Your task to perform on an android device: Open wifi settings Image 0: 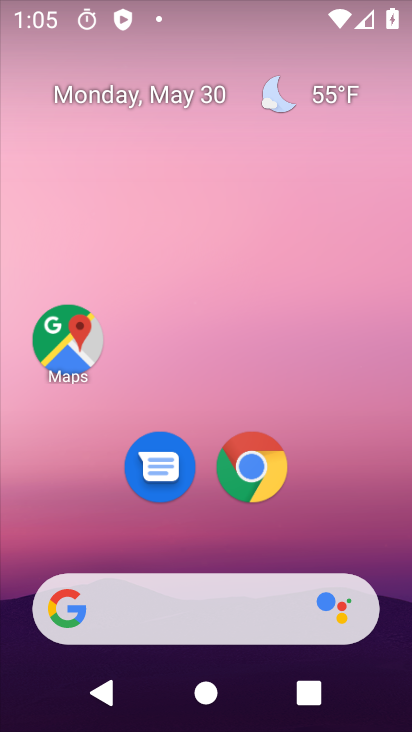
Step 0: drag from (391, 664) to (344, 223)
Your task to perform on an android device: Open wifi settings Image 1: 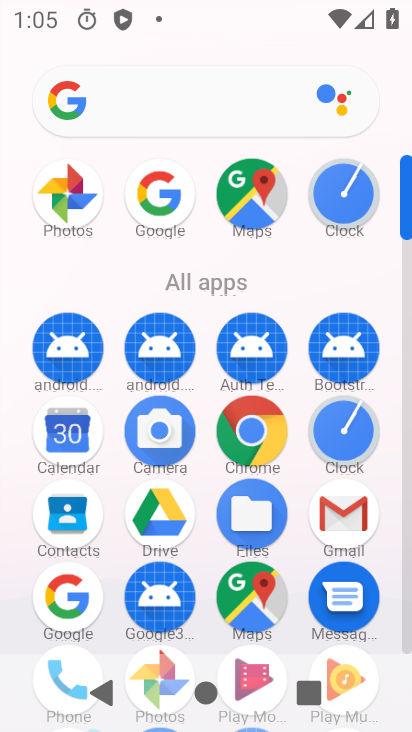
Step 1: drag from (192, 621) to (194, 221)
Your task to perform on an android device: Open wifi settings Image 2: 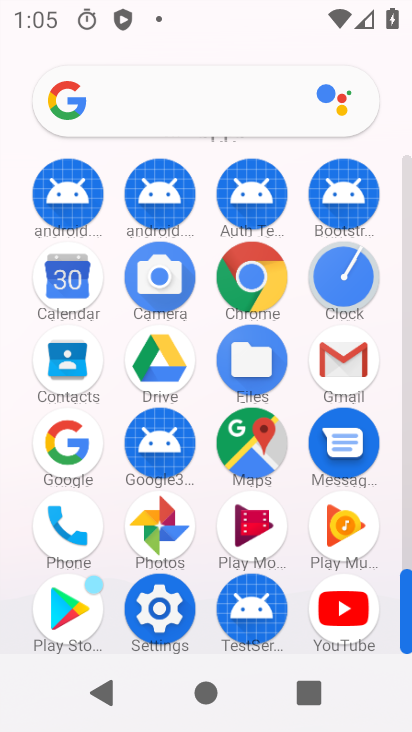
Step 2: click (169, 615)
Your task to perform on an android device: Open wifi settings Image 3: 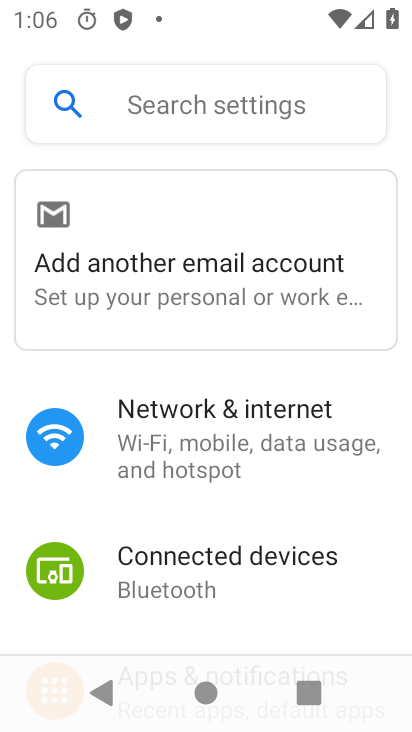
Step 3: drag from (223, 594) to (221, 247)
Your task to perform on an android device: Open wifi settings Image 4: 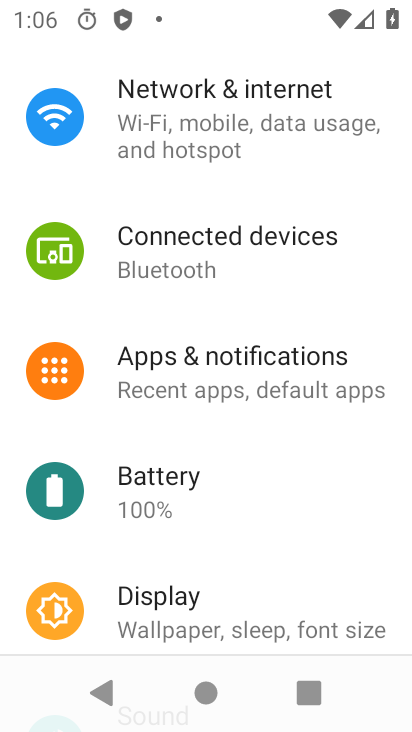
Step 4: click (169, 133)
Your task to perform on an android device: Open wifi settings Image 5: 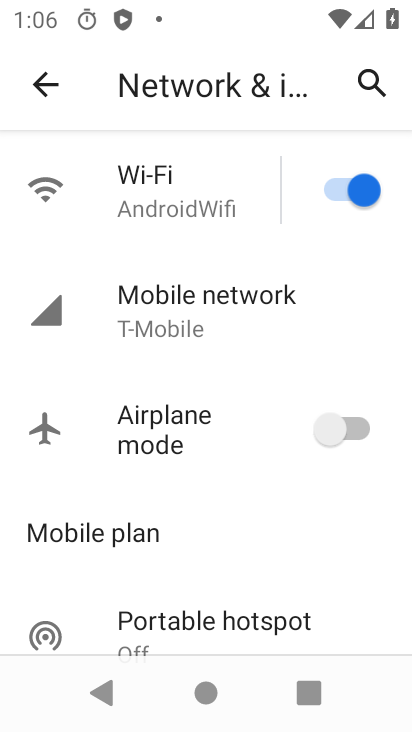
Step 5: drag from (250, 564) to (224, 318)
Your task to perform on an android device: Open wifi settings Image 6: 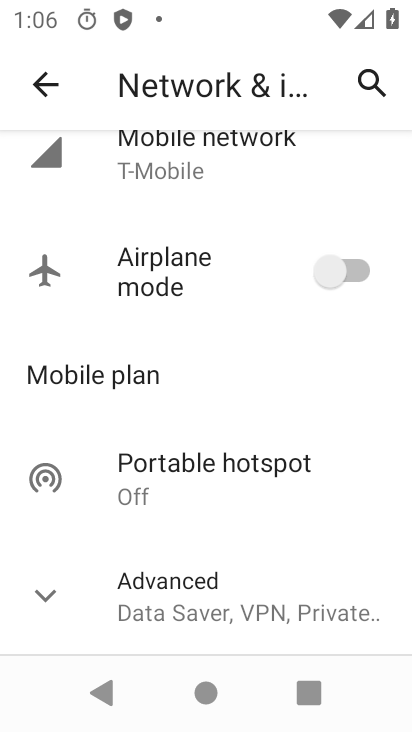
Step 6: drag from (238, 266) to (237, 589)
Your task to perform on an android device: Open wifi settings Image 7: 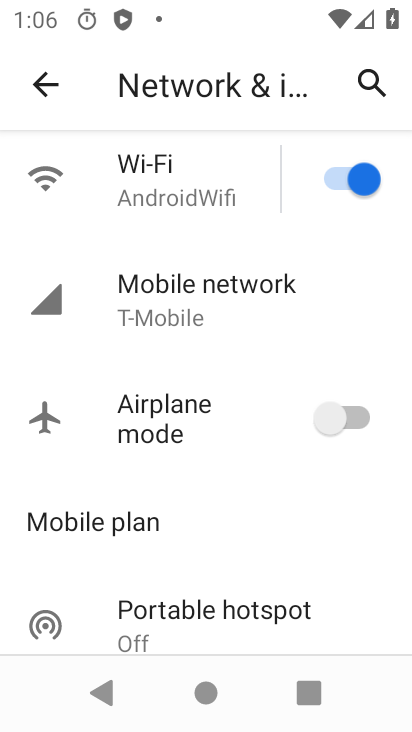
Step 7: click (179, 177)
Your task to perform on an android device: Open wifi settings Image 8: 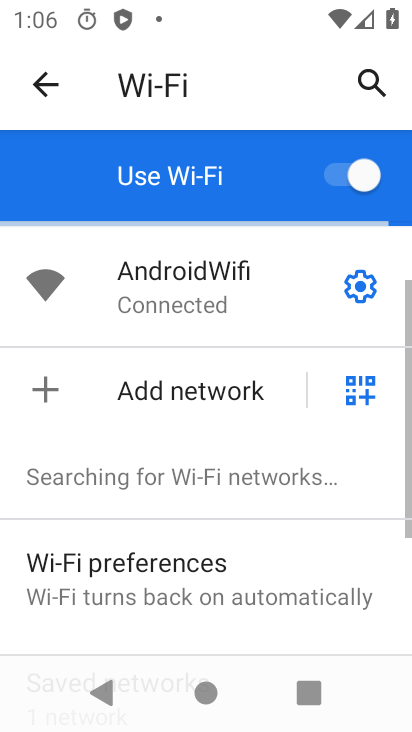
Step 8: click (354, 283)
Your task to perform on an android device: Open wifi settings Image 9: 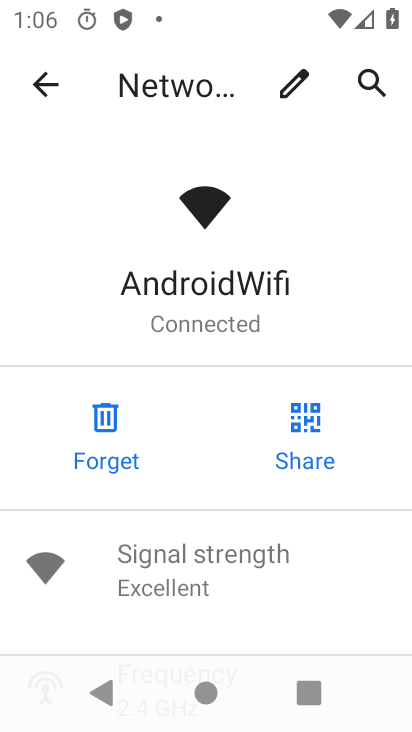
Step 9: task complete